Your task to perform on an android device: Go to ESPN.com Image 0: 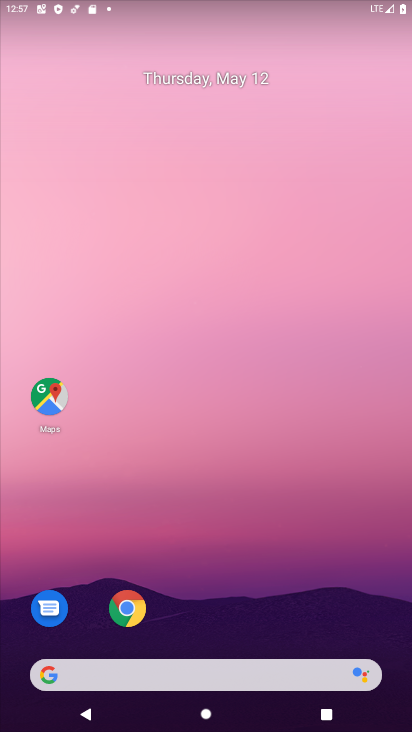
Step 0: click (134, 611)
Your task to perform on an android device: Go to ESPN.com Image 1: 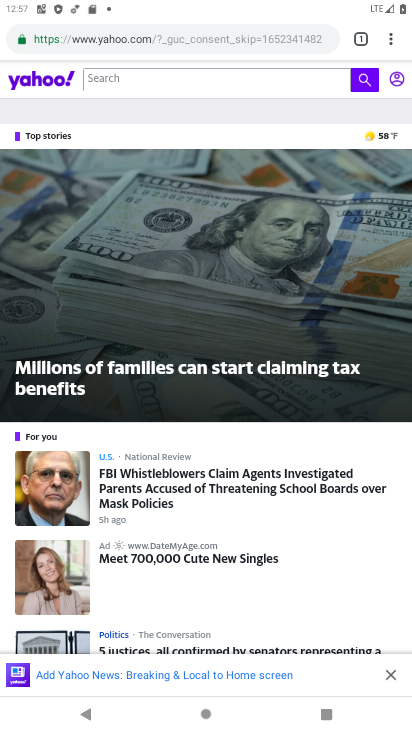
Step 1: click (120, 41)
Your task to perform on an android device: Go to ESPN.com Image 2: 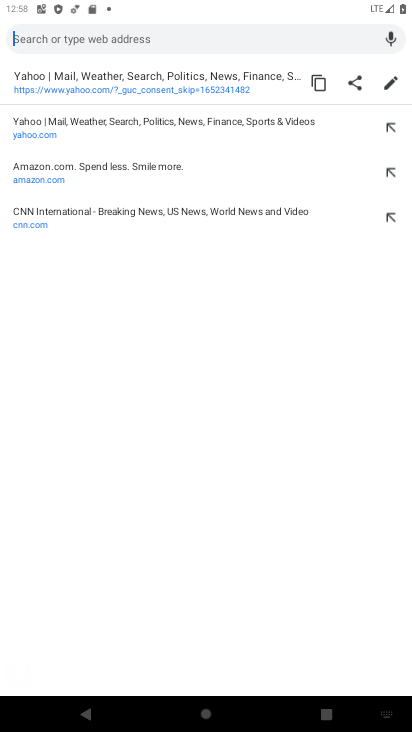
Step 2: type "espn.com"
Your task to perform on an android device: Go to ESPN.com Image 3: 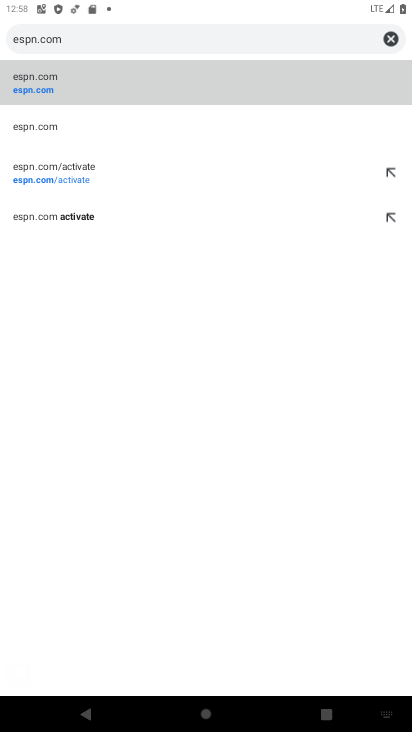
Step 3: click (29, 84)
Your task to perform on an android device: Go to ESPN.com Image 4: 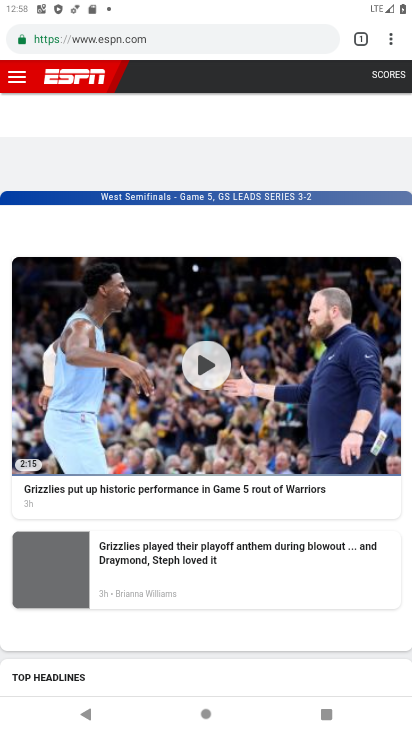
Step 4: task complete